Your task to perform on an android device: Search for seafood restaurants on Google Maps Image 0: 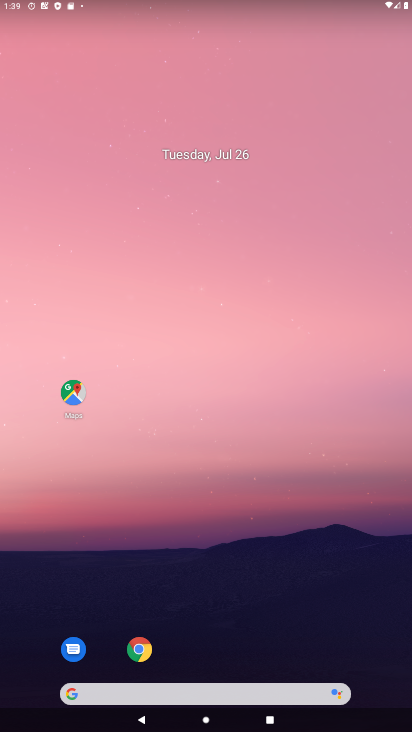
Step 0: drag from (321, 597) to (151, 6)
Your task to perform on an android device: Search for seafood restaurants on Google Maps Image 1: 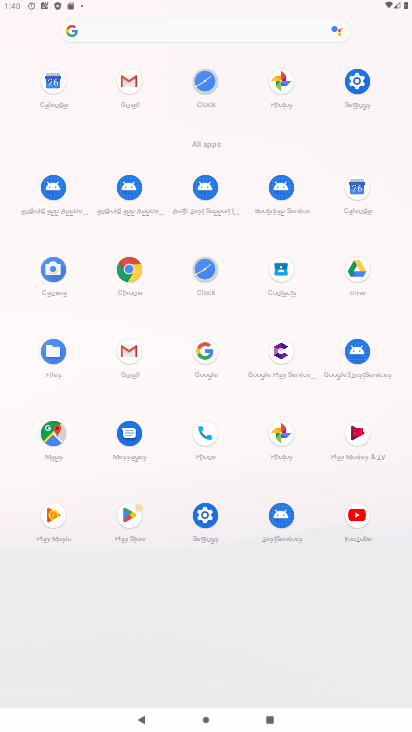
Step 1: click (56, 424)
Your task to perform on an android device: Search for seafood restaurants on Google Maps Image 2: 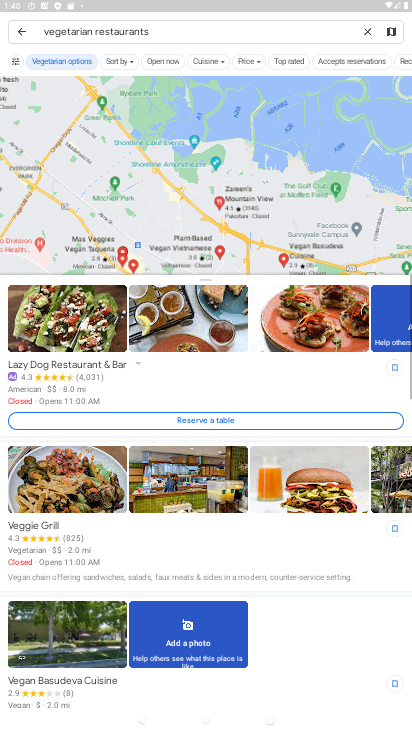
Step 2: click (363, 35)
Your task to perform on an android device: Search for seafood restaurants on Google Maps Image 3: 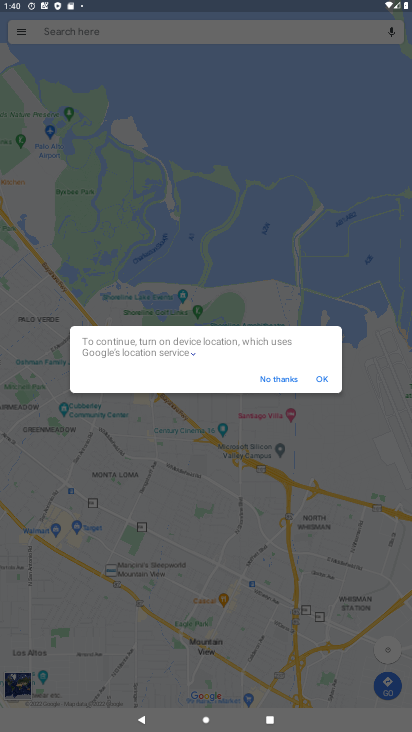
Step 3: click (320, 379)
Your task to perform on an android device: Search for seafood restaurants on Google Maps Image 4: 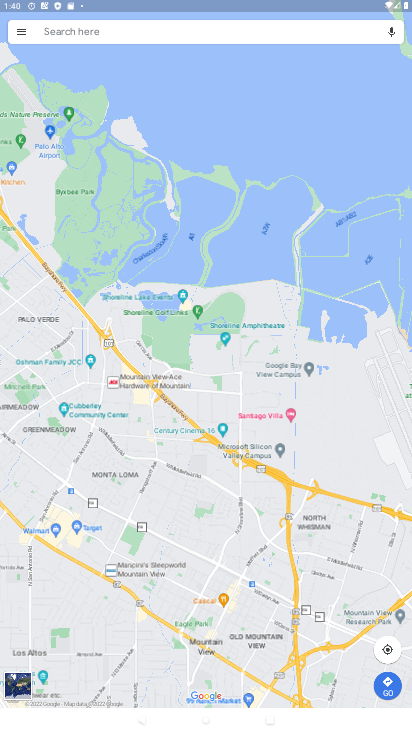
Step 4: click (86, 30)
Your task to perform on an android device: Search for seafood restaurants on Google Maps Image 5: 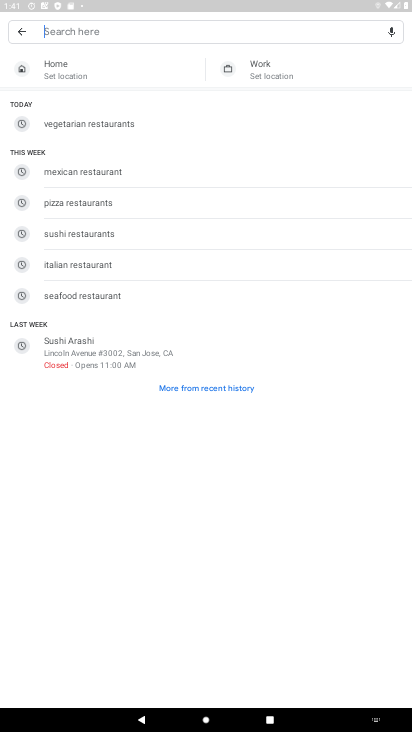
Step 5: click (75, 300)
Your task to perform on an android device: Search for seafood restaurants on Google Maps Image 6: 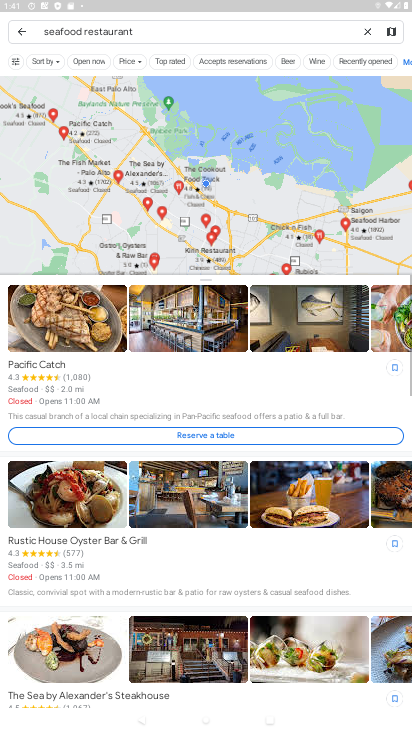
Step 6: task complete